Your task to perform on an android device: Go to eBay Image 0: 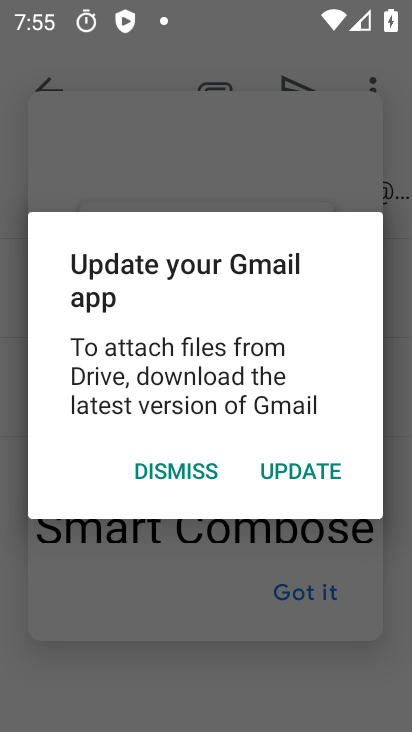
Step 0: press home button
Your task to perform on an android device: Go to eBay Image 1: 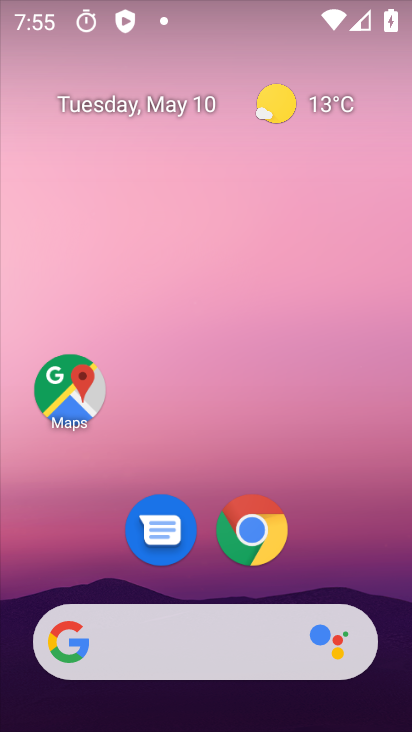
Step 1: click (257, 527)
Your task to perform on an android device: Go to eBay Image 2: 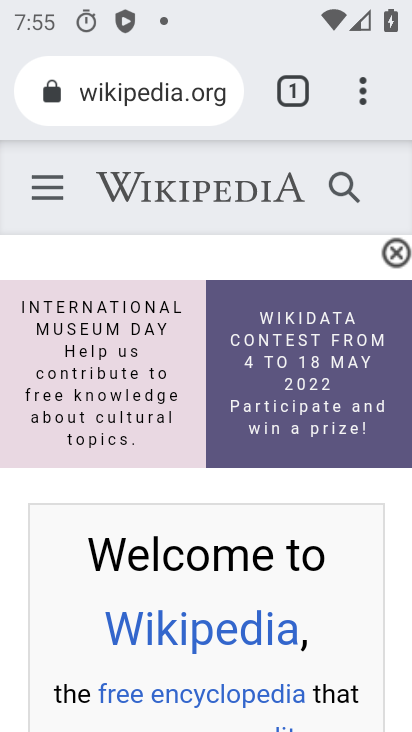
Step 2: click (157, 91)
Your task to perform on an android device: Go to eBay Image 3: 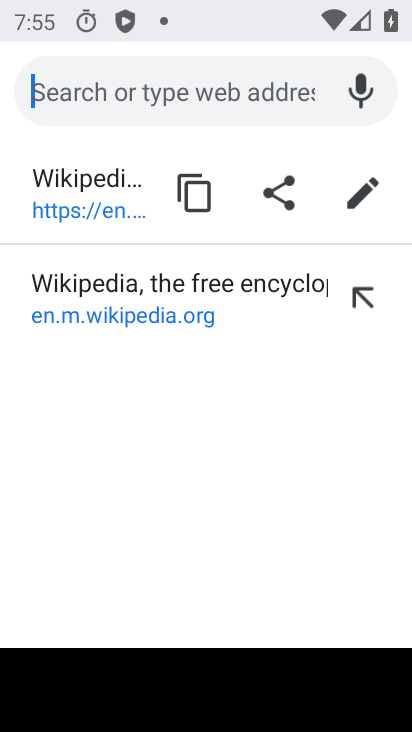
Step 3: type "ebay"
Your task to perform on an android device: Go to eBay Image 4: 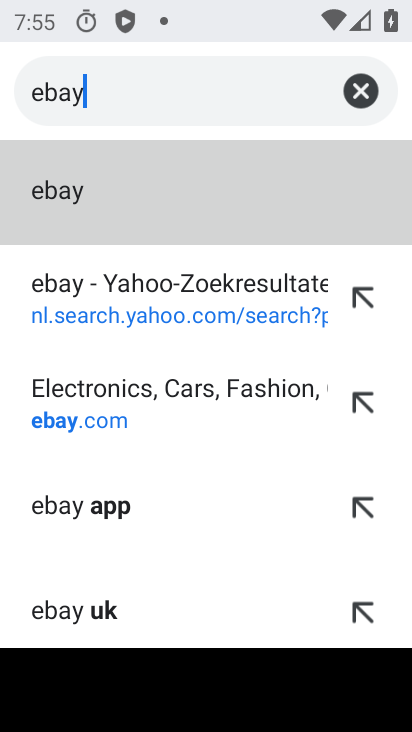
Step 4: click (42, 191)
Your task to perform on an android device: Go to eBay Image 5: 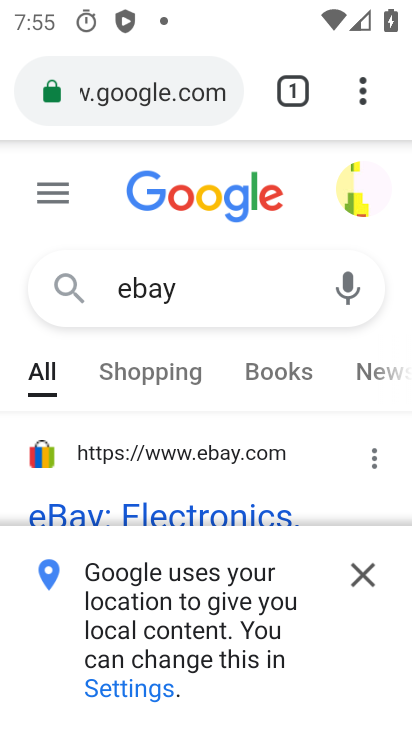
Step 5: drag from (268, 417) to (285, 183)
Your task to perform on an android device: Go to eBay Image 6: 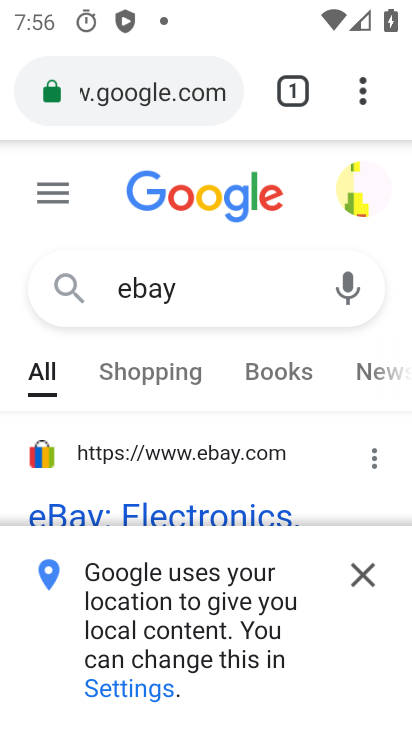
Step 6: click (195, 513)
Your task to perform on an android device: Go to eBay Image 7: 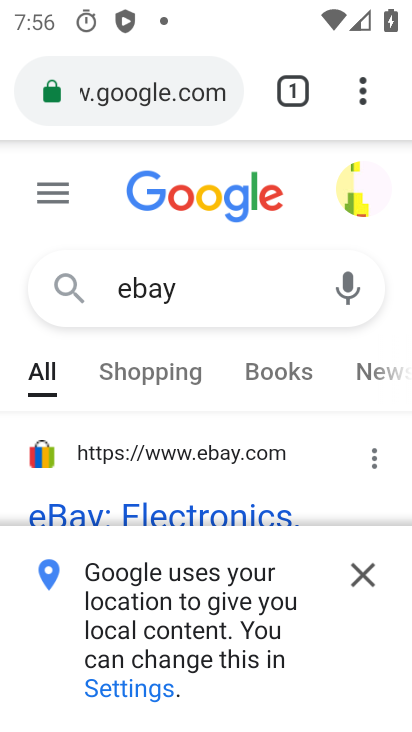
Step 7: click (217, 506)
Your task to perform on an android device: Go to eBay Image 8: 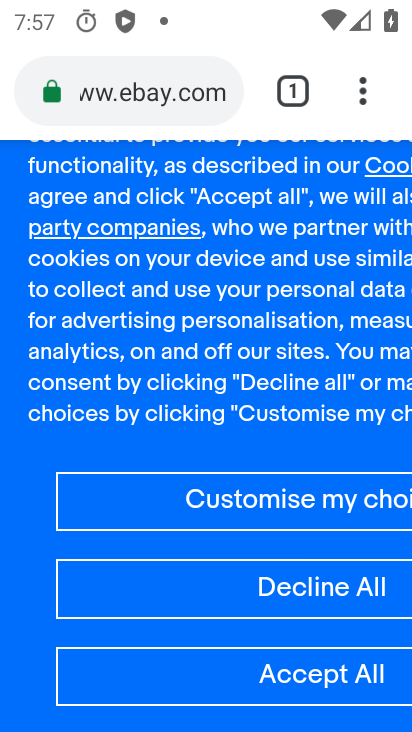
Step 8: task complete